Your task to perform on an android device: change alarm snooze length Image 0: 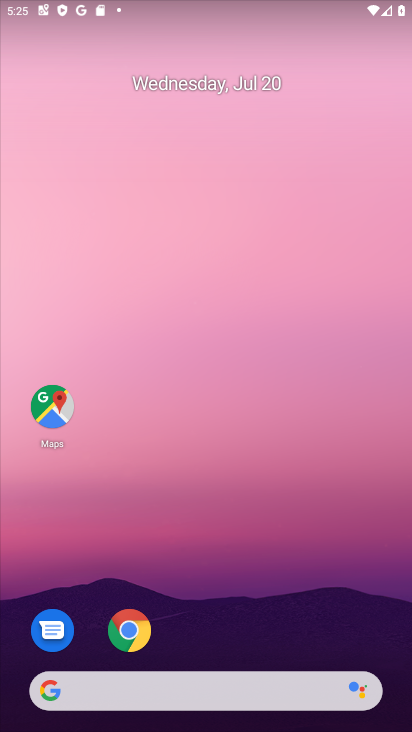
Step 0: drag from (212, 684) to (226, 169)
Your task to perform on an android device: change alarm snooze length Image 1: 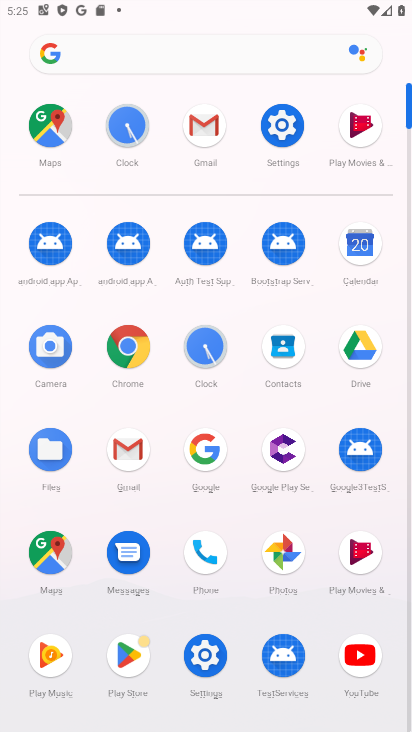
Step 1: click (204, 346)
Your task to perform on an android device: change alarm snooze length Image 2: 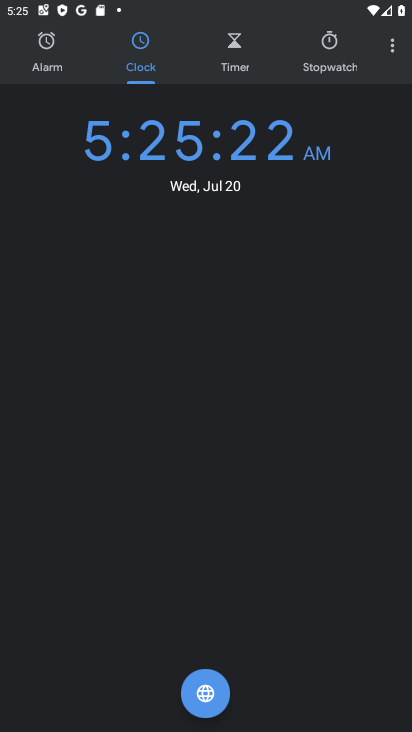
Step 2: click (393, 48)
Your task to perform on an android device: change alarm snooze length Image 3: 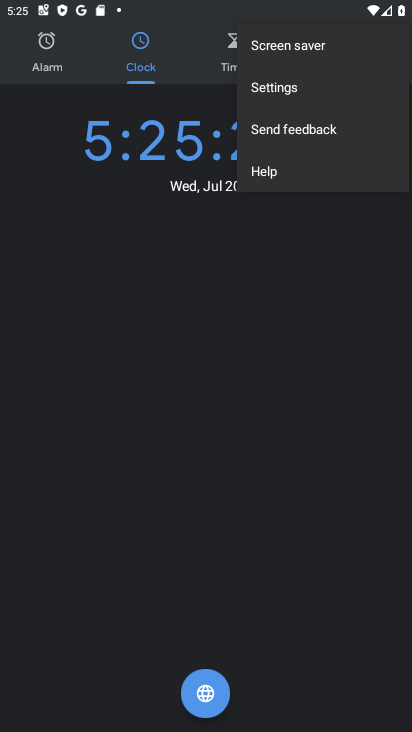
Step 3: click (298, 91)
Your task to perform on an android device: change alarm snooze length Image 4: 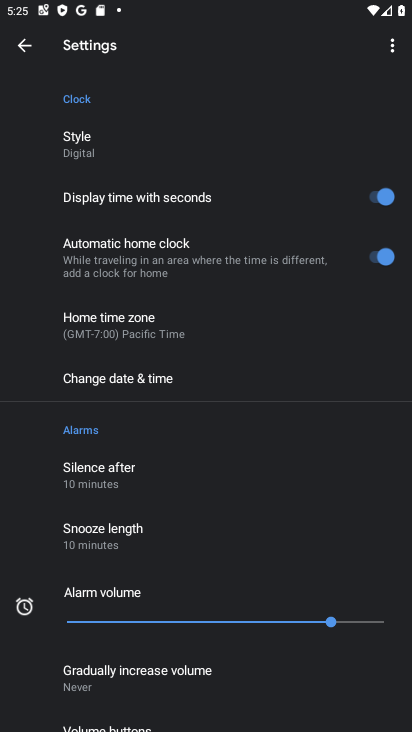
Step 4: drag from (202, 427) to (219, 206)
Your task to perform on an android device: change alarm snooze length Image 5: 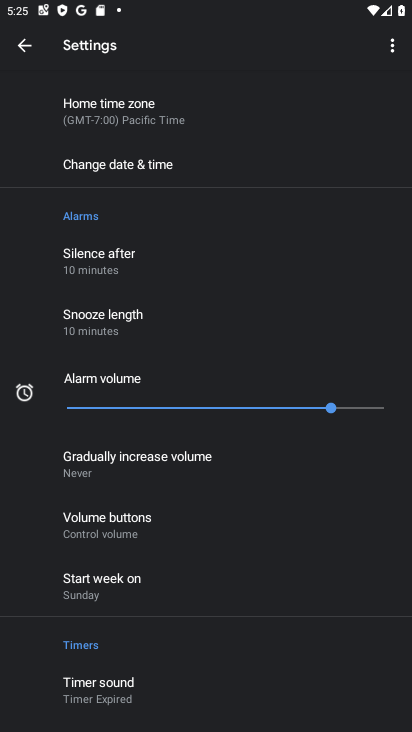
Step 5: click (149, 315)
Your task to perform on an android device: change alarm snooze length Image 6: 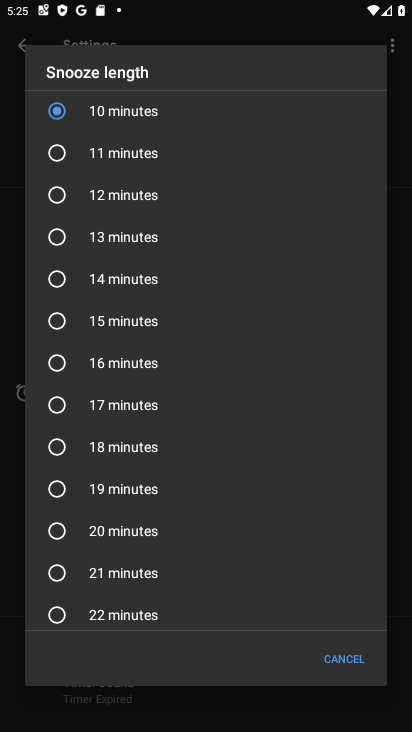
Step 6: click (57, 534)
Your task to perform on an android device: change alarm snooze length Image 7: 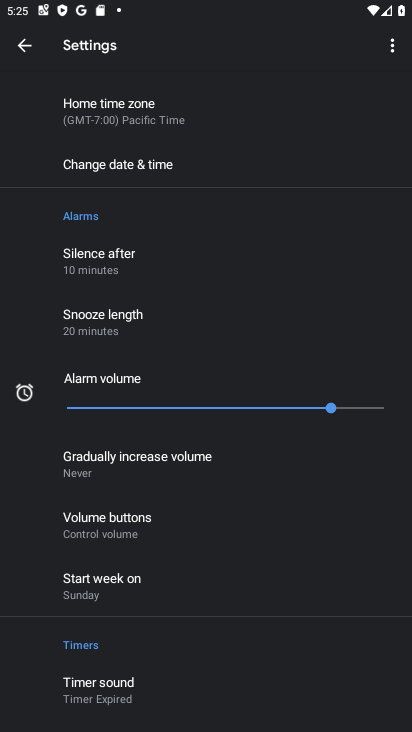
Step 7: task complete